Your task to perform on an android device: Is it going to rain today? Image 0: 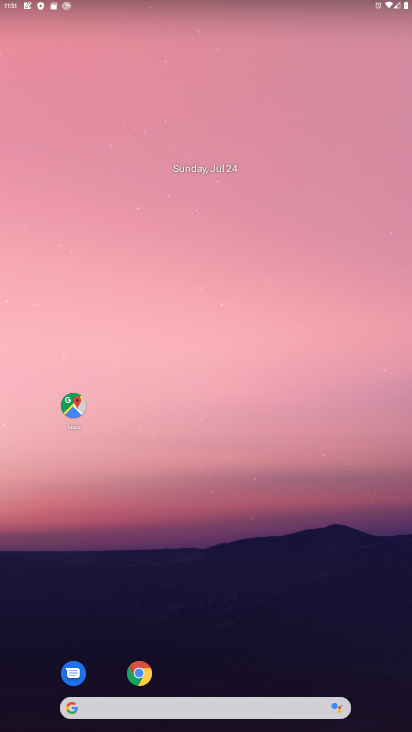
Step 0: drag from (334, 598) to (327, 77)
Your task to perform on an android device: Is it going to rain today? Image 1: 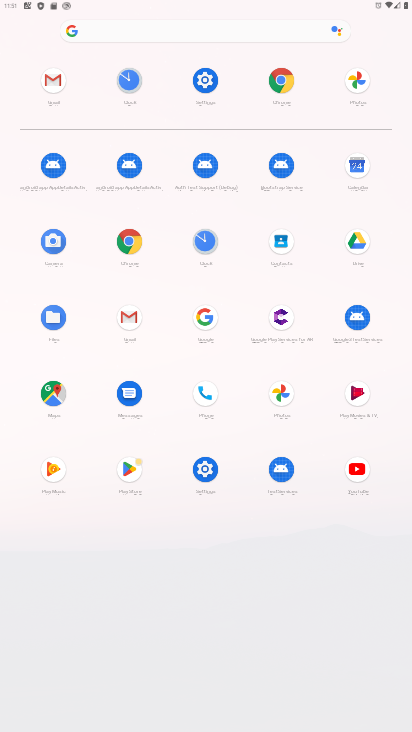
Step 1: click (280, 83)
Your task to perform on an android device: Is it going to rain today? Image 2: 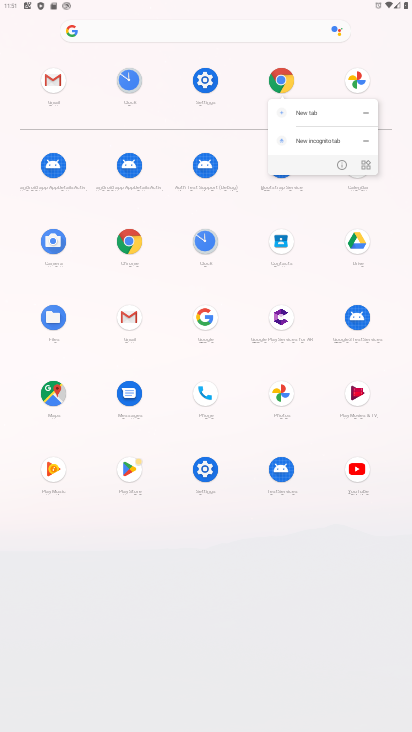
Step 2: click (280, 83)
Your task to perform on an android device: Is it going to rain today? Image 3: 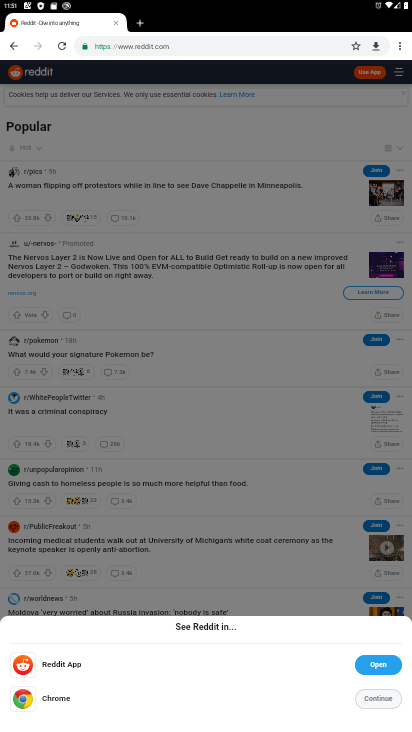
Step 3: click (220, 41)
Your task to perform on an android device: Is it going to rain today? Image 4: 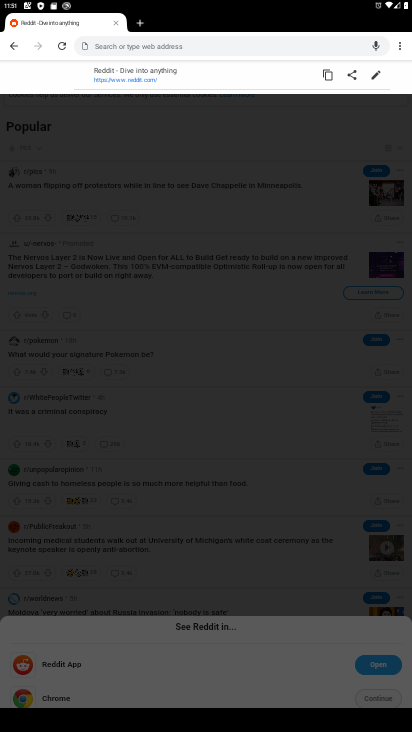
Step 4: type ""
Your task to perform on an android device: Is it going to rain today? Image 5: 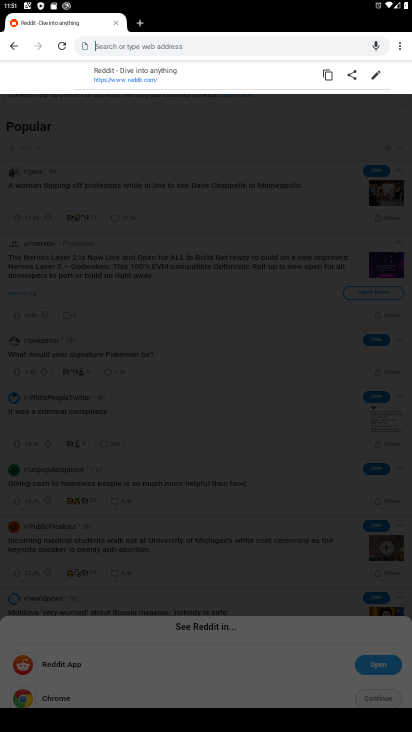
Step 5: type "weather"
Your task to perform on an android device: Is it going to rain today? Image 6: 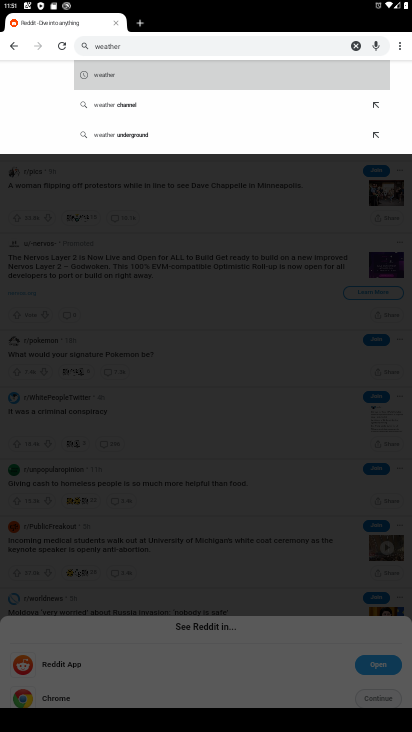
Step 6: click (228, 85)
Your task to perform on an android device: Is it going to rain today? Image 7: 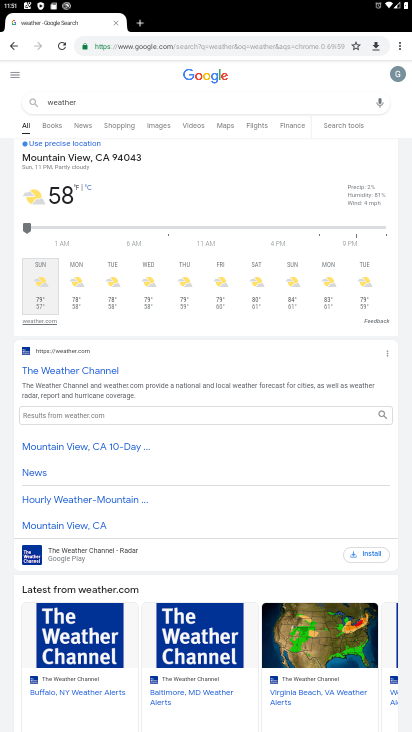
Step 7: task complete